Your task to perform on an android device: Open privacy settings Image 0: 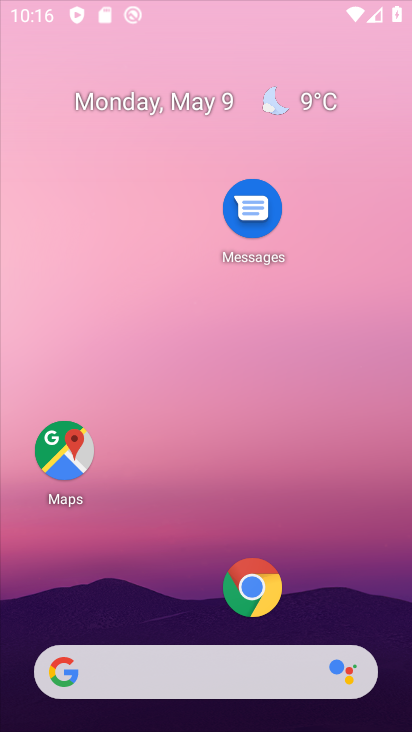
Step 0: click (43, 290)
Your task to perform on an android device: Open privacy settings Image 1: 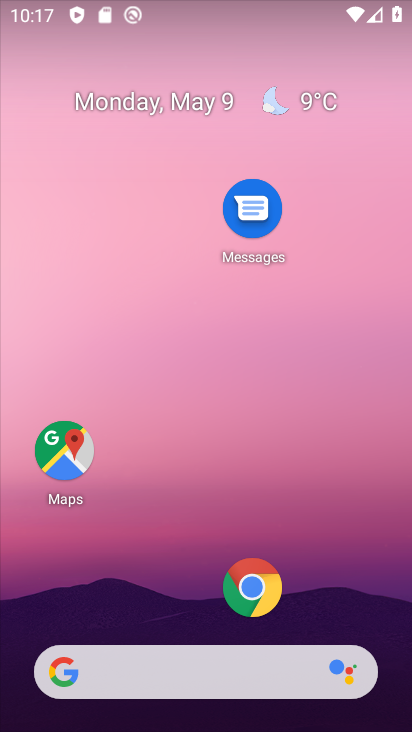
Step 1: drag from (160, 556) to (325, 73)
Your task to perform on an android device: Open privacy settings Image 2: 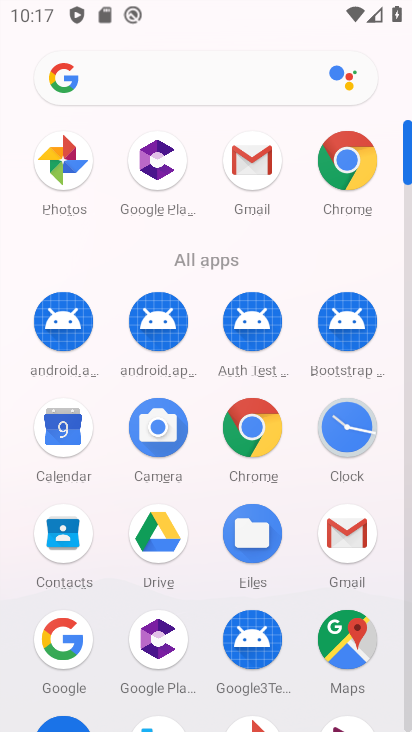
Step 2: drag from (202, 591) to (258, 170)
Your task to perform on an android device: Open privacy settings Image 3: 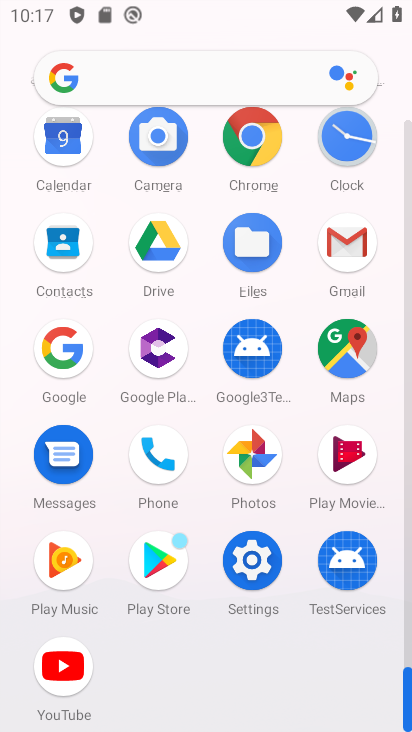
Step 3: click (247, 558)
Your task to perform on an android device: Open privacy settings Image 4: 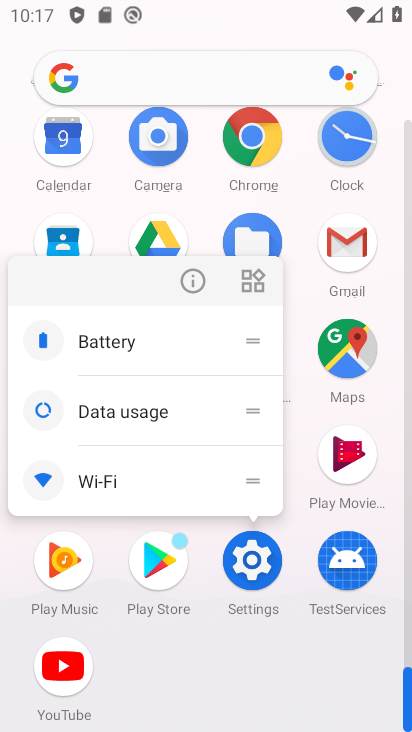
Step 4: click (191, 286)
Your task to perform on an android device: Open privacy settings Image 5: 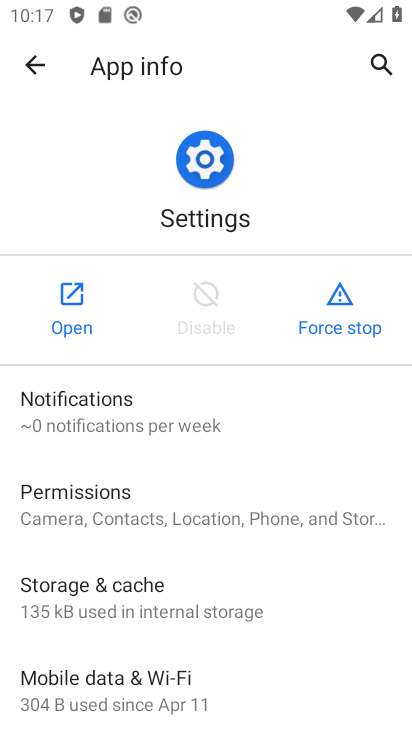
Step 5: click (75, 310)
Your task to perform on an android device: Open privacy settings Image 6: 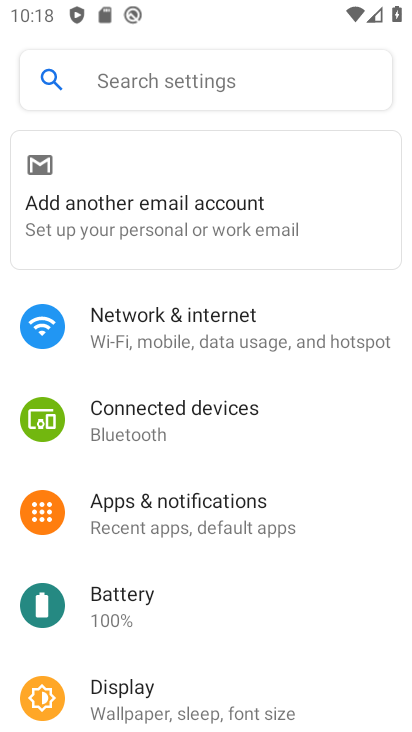
Step 6: drag from (234, 630) to (287, 164)
Your task to perform on an android device: Open privacy settings Image 7: 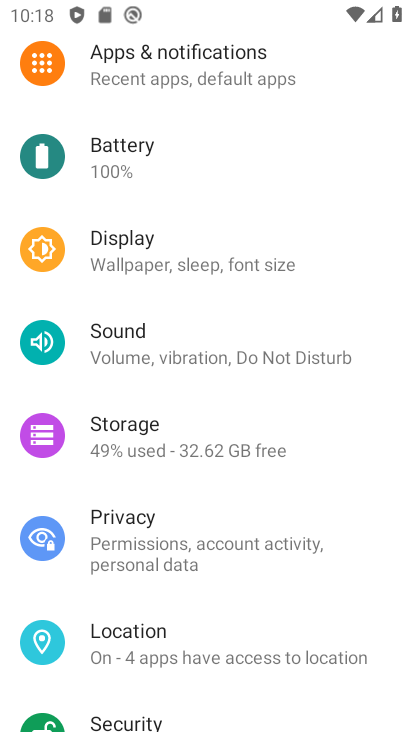
Step 7: drag from (200, 593) to (271, 131)
Your task to perform on an android device: Open privacy settings Image 8: 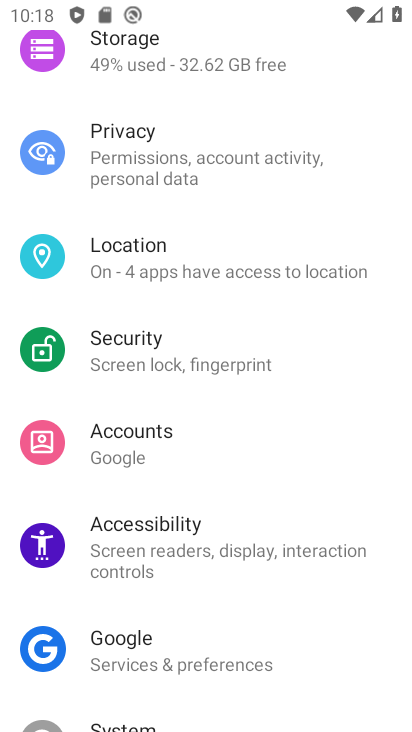
Step 8: drag from (196, 572) to (242, 170)
Your task to perform on an android device: Open privacy settings Image 9: 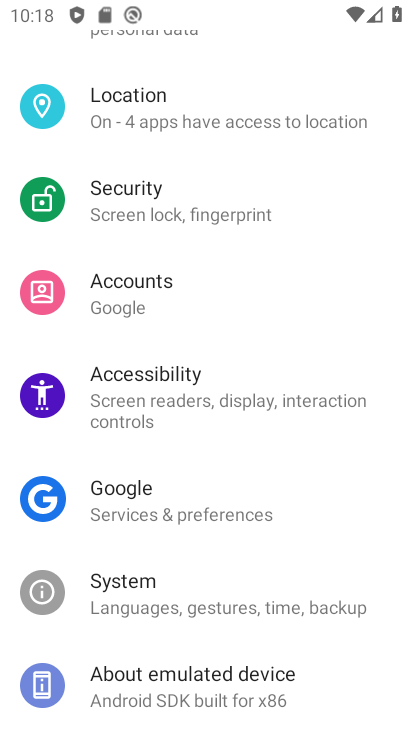
Step 9: drag from (197, 607) to (240, 173)
Your task to perform on an android device: Open privacy settings Image 10: 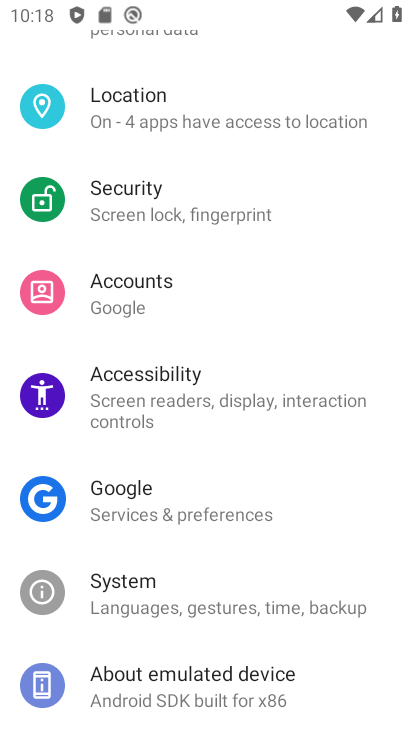
Step 10: drag from (152, 484) to (175, 681)
Your task to perform on an android device: Open privacy settings Image 11: 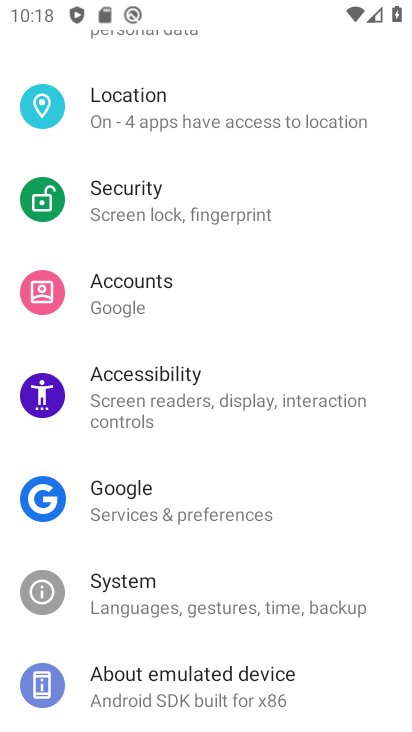
Step 11: drag from (244, 195) to (245, 696)
Your task to perform on an android device: Open privacy settings Image 12: 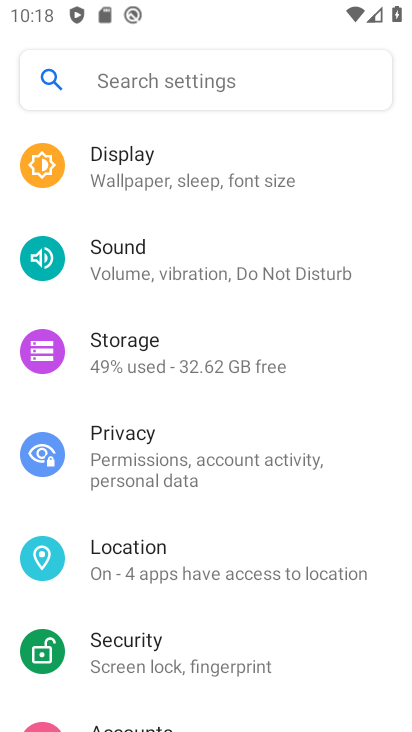
Step 12: click (151, 461)
Your task to perform on an android device: Open privacy settings Image 13: 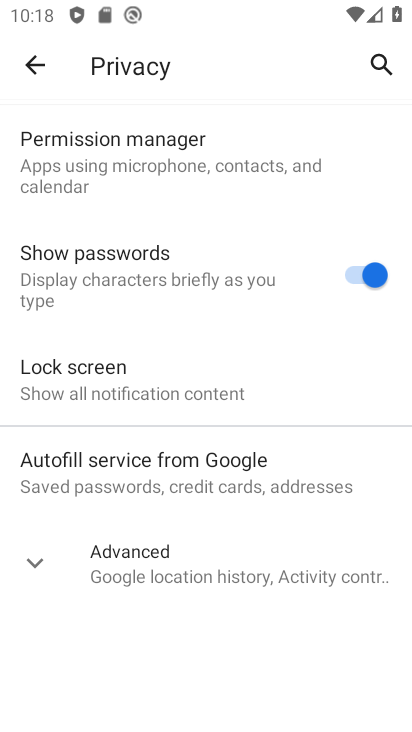
Step 13: task complete